Your task to perform on an android device: Do I have any events tomorrow? Image 0: 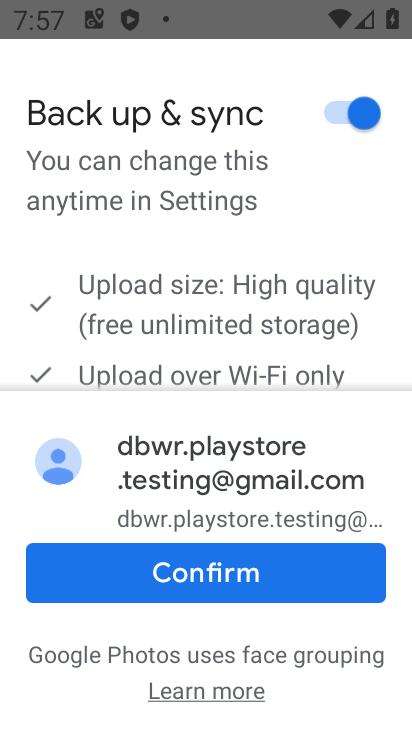
Step 0: press home button
Your task to perform on an android device: Do I have any events tomorrow? Image 1: 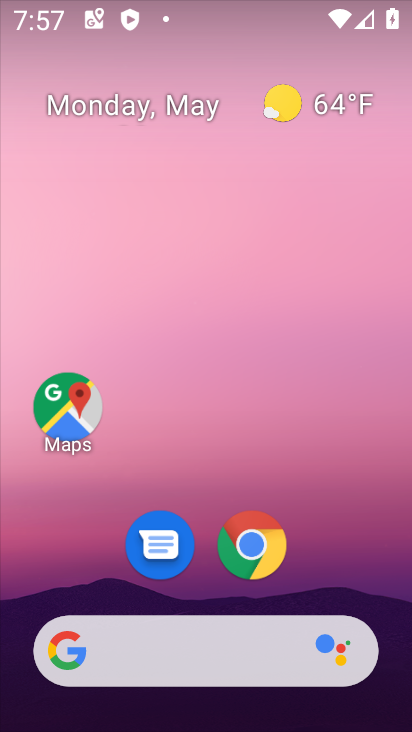
Step 1: drag from (180, 627) to (110, 3)
Your task to perform on an android device: Do I have any events tomorrow? Image 2: 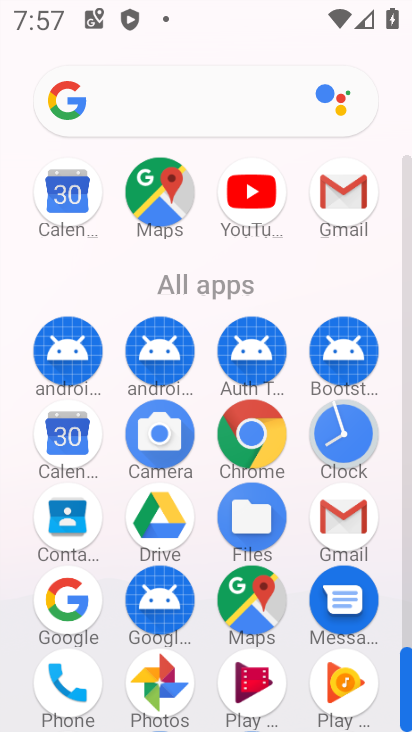
Step 2: click (64, 439)
Your task to perform on an android device: Do I have any events tomorrow? Image 3: 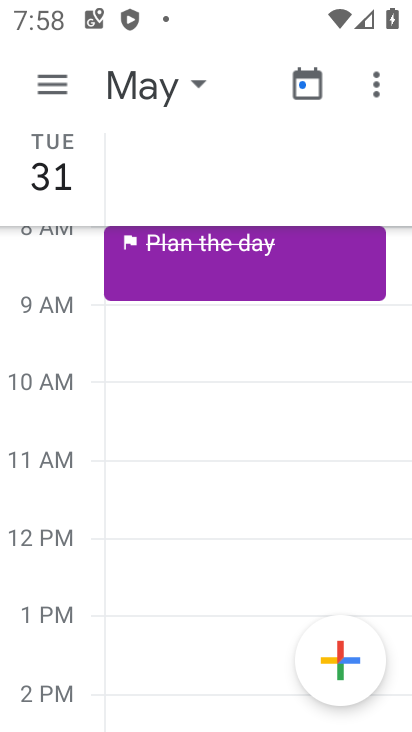
Step 3: click (45, 84)
Your task to perform on an android device: Do I have any events tomorrow? Image 4: 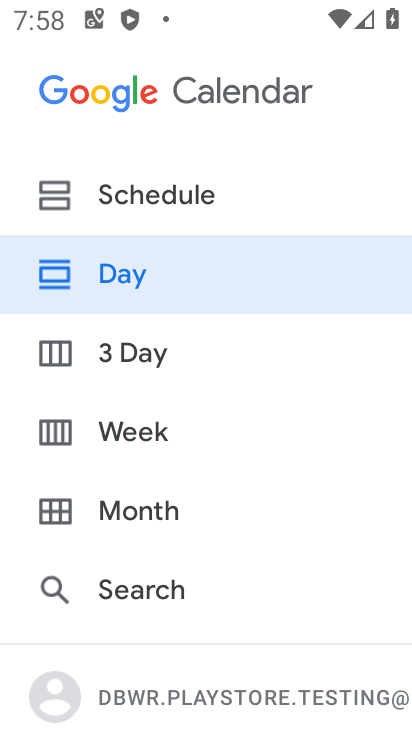
Step 4: click (121, 191)
Your task to perform on an android device: Do I have any events tomorrow? Image 5: 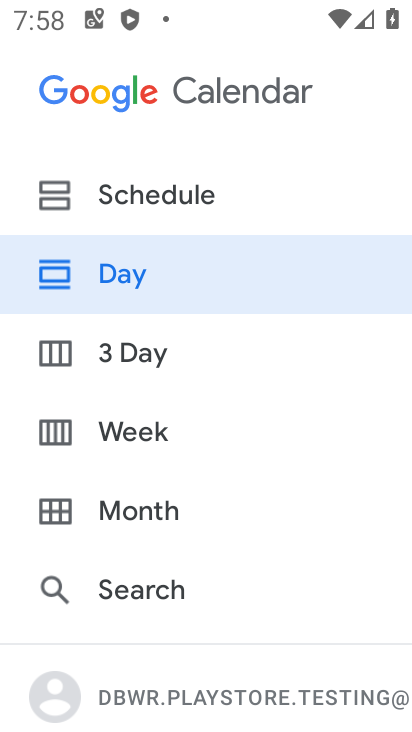
Step 5: click (159, 187)
Your task to perform on an android device: Do I have any events tomorrow? Image 6: 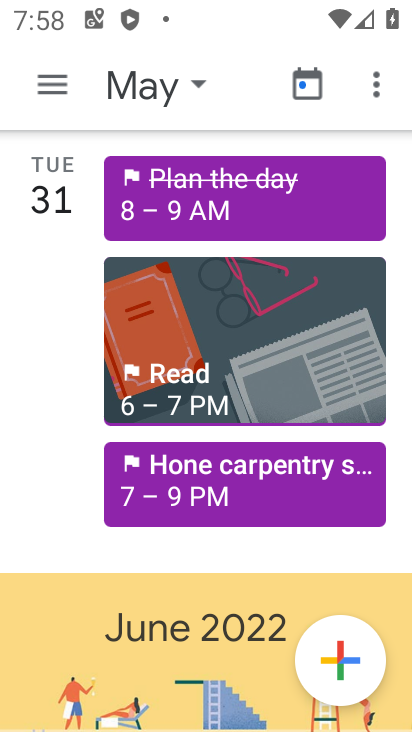
Step 6: task complete